Your task to perform on an android device: Clear all items from cart on walmart.com. Search for "bose soundlink mini" on walmart.com, select the first entry, and add it to the cart. Image 0: 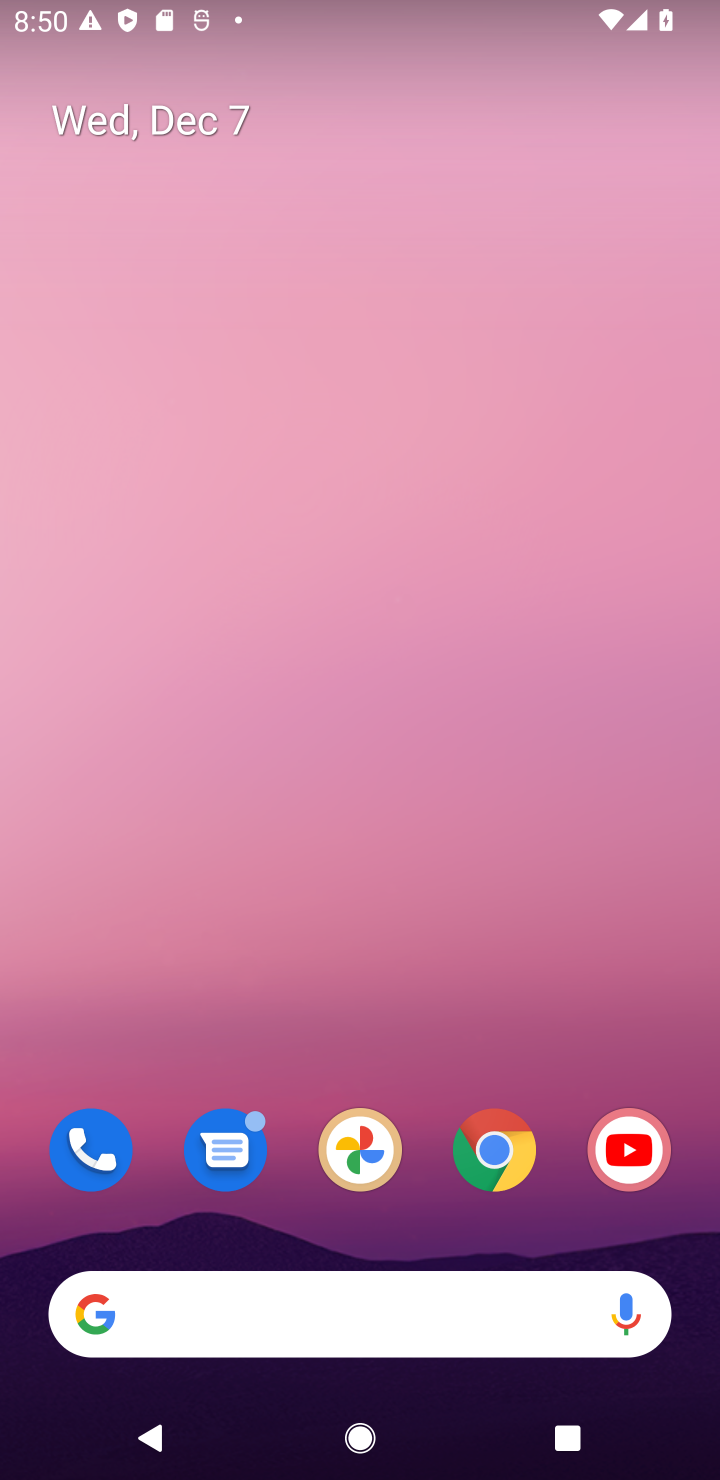
Step 0: task complete